Your task to perform on an android device: open wifi settings Image 0: 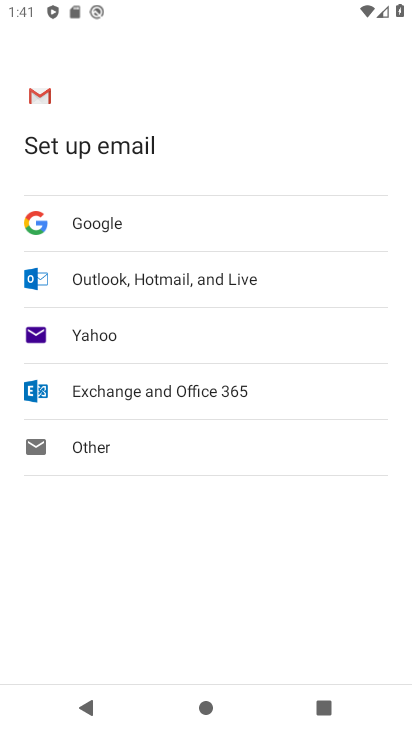
Step 0: press home button
Your task to perform on an android device: open wifi settings Image 1: 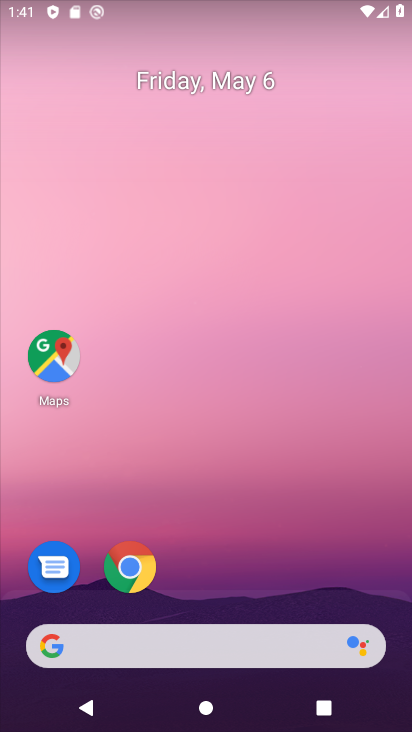
Step 1: drag from (350, 604) to (320, 61)
Your task to perform on an android device: open wifi settings Image 2: 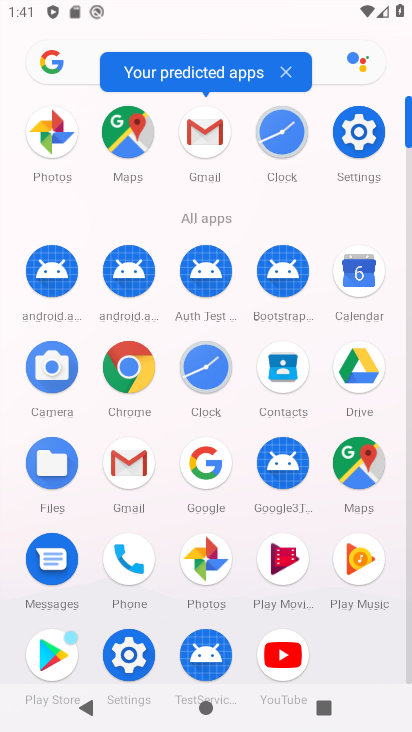
Step 2: click (126, 656)
Your task to perform on an android device: open wifi settings Image 3: 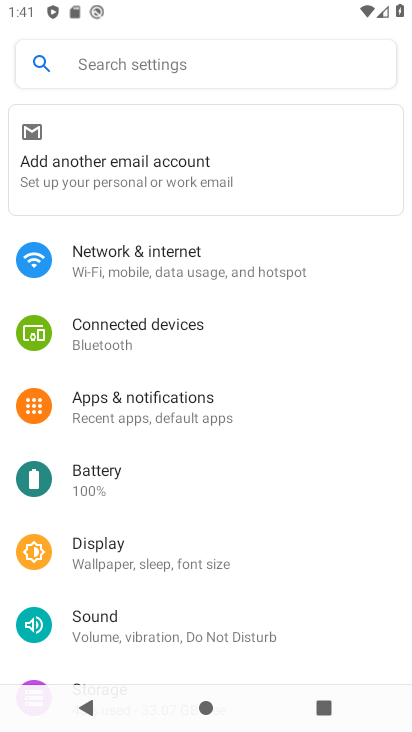
Step 3: click (125, 253)
Your task to perform on an android device: open wifi settings Image 4: 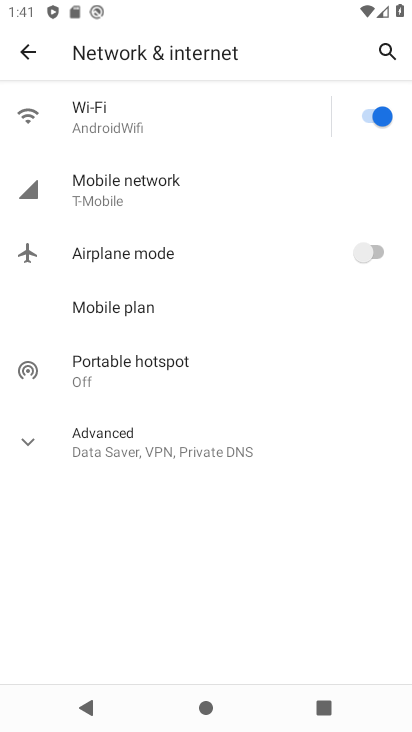
Step 4: click (95, 114)
Your task to perform on an android device: open wifi settings Image 5: 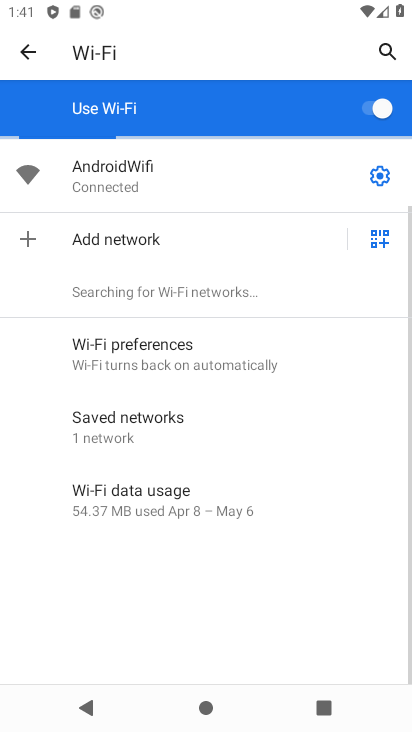
Step 5: click (377, 171)
Your task to perform on an android device: open wifi settings Image 6: 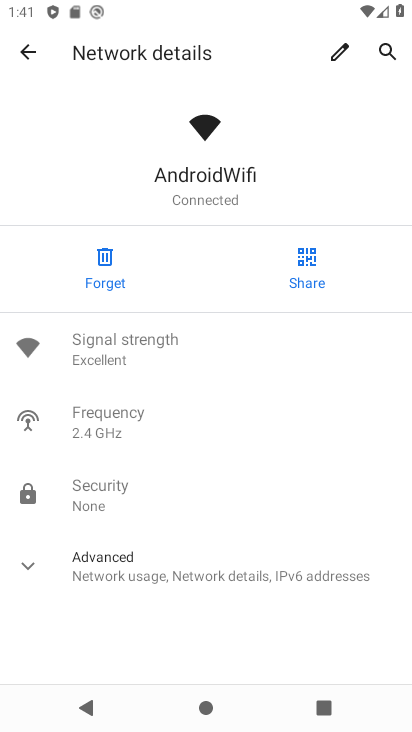
Step 6: click (30, 568)
Your task to perform on an android device: open wifi settings Image 7: 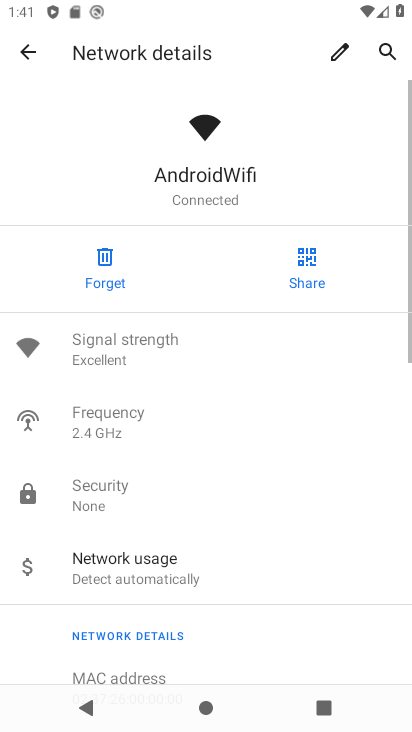
Step 7: task complete